Your task to perform on an android device: Go to wifi settings Image 0: 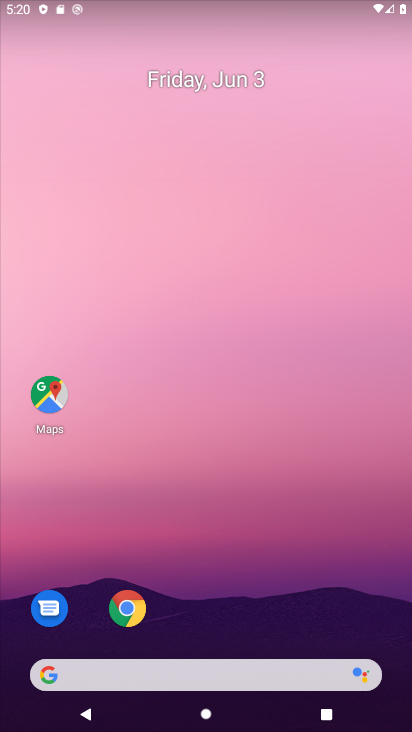
Step 0: drag from (248, 586) to (248, 372)
Your task to perform on an android device: Go to wifi settings Image 1: 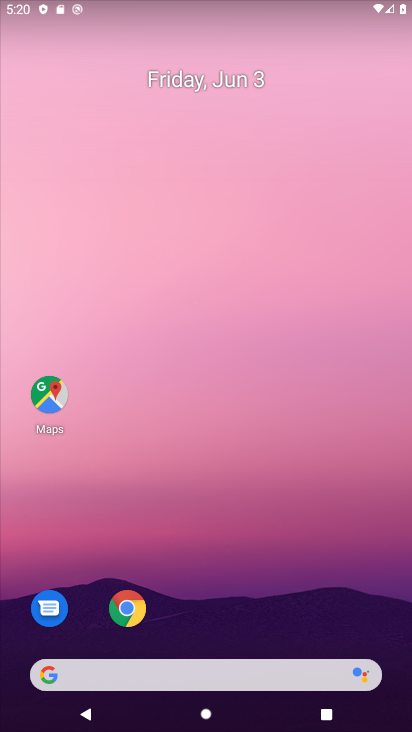
Step 1: drag from (262, 527) to (328, 2)
Your task to perform on an android device: Go to wifi settings Image 2: 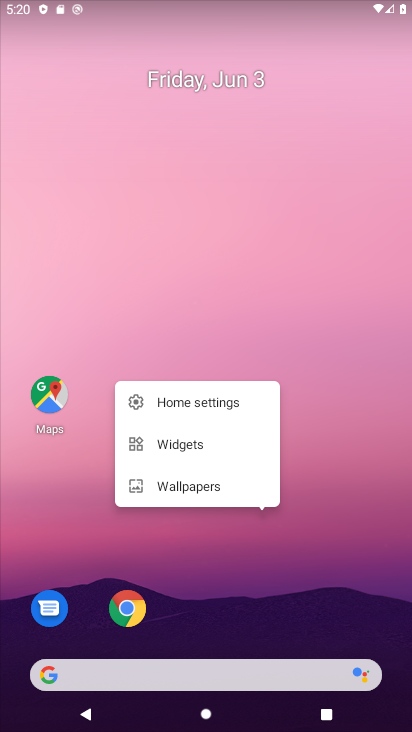
Step 2: click (281, 243)
Your task to perform on an android device: Go to wifi settings Image 3: 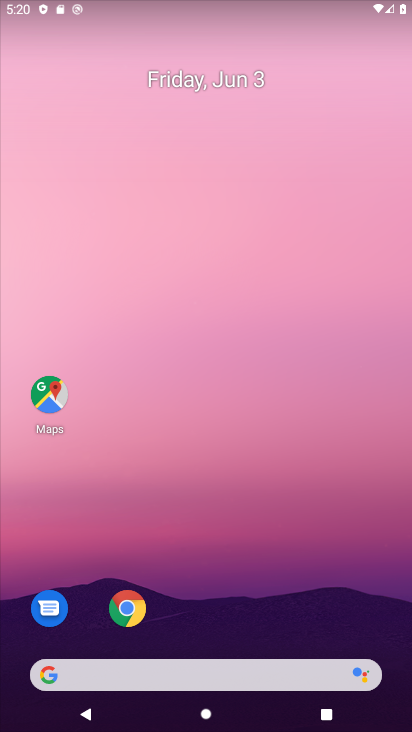
Step 3: click (281, 243)
Your task to perform on an android device: Go to wifi settings Image 4: 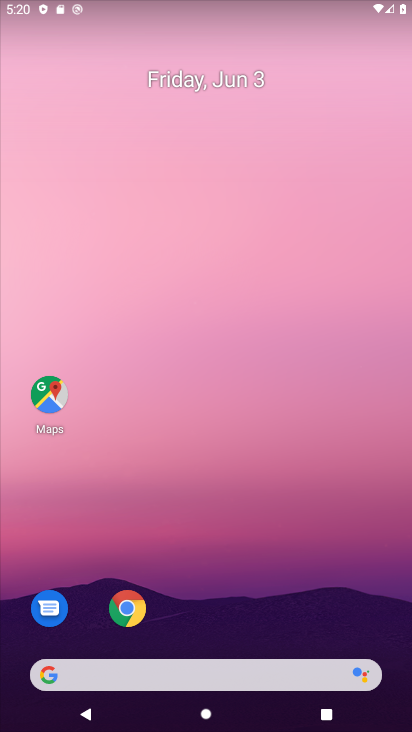
Step 4: drag from (303, 530) to (314, 90)
Your task to perform on an android device: Go to wifi settings Image 5: 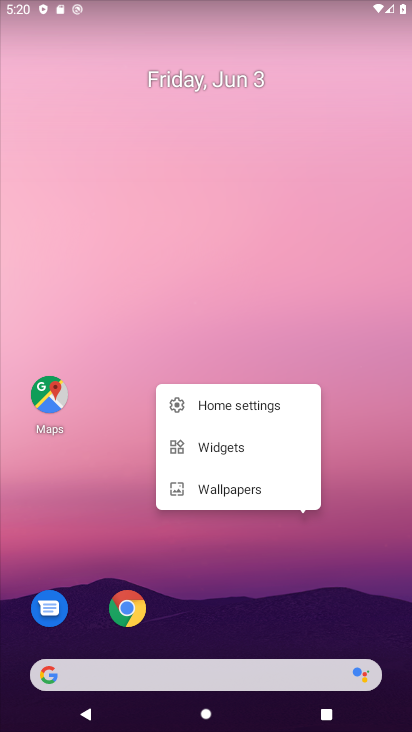
Step 5: click (314, 90)
Your task to perform on an android device: Go to wifi settings Image 6: 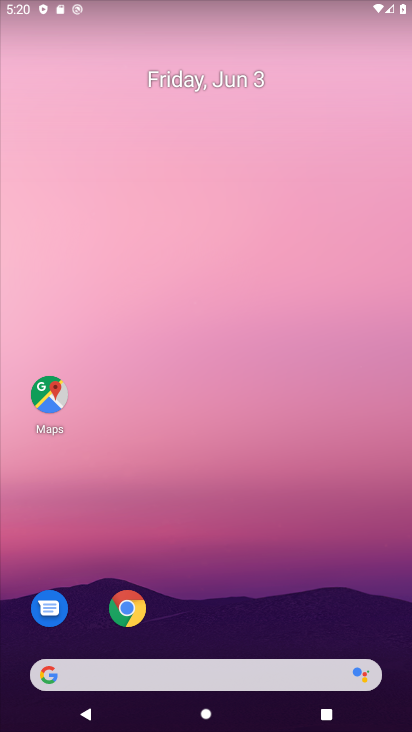
Step 6: click (314, 90)
Your task to perform on an android device: Go to wifi settings Image 7: 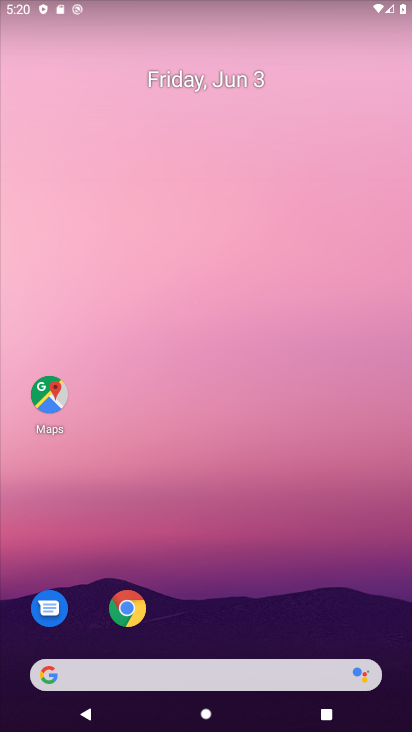
Step 7: drag from (243, 547) to (217, 138)
Your task to perform on an android device: Go to wifi settings Image 8: 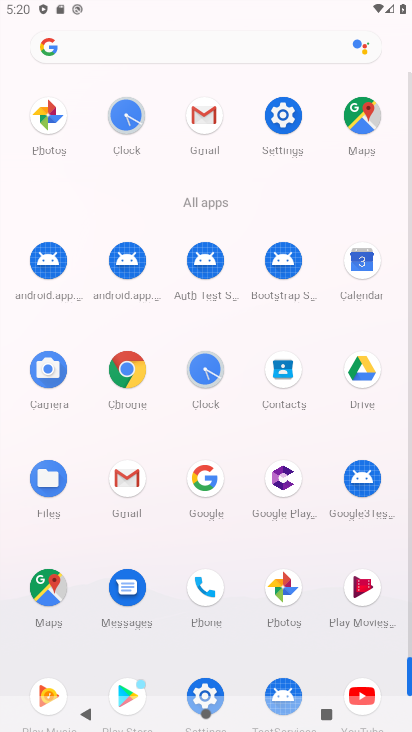
Step 8: click (279, 127)
Your task to perform on an android device: Go to wifi settings Image 9: 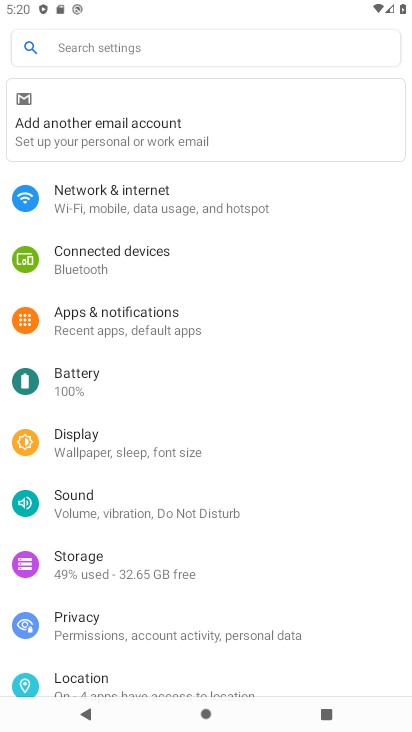
Step 9: click (201, 194)
Your task to perform on an android device: Go to wifi settings Image 10: 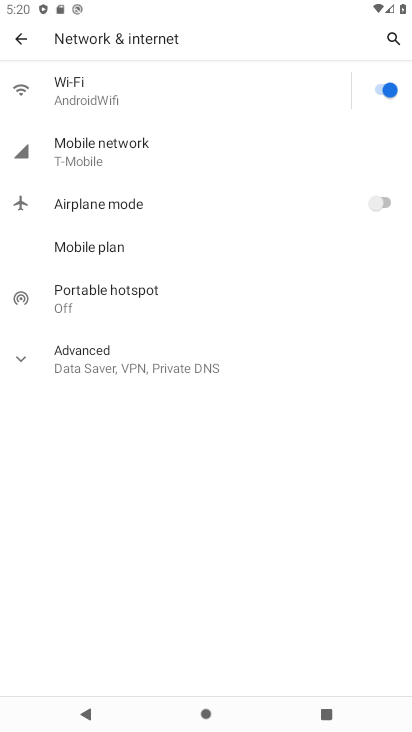
Step 10: click (106, 98)
Your task to perform on an android device: Go to wifi settings Image 11: 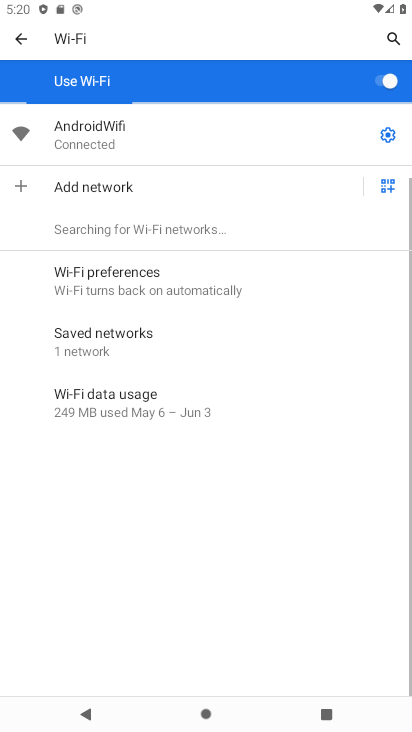
Step 11: task complete